Your task to perform on an android device: Go to Google Image 0: 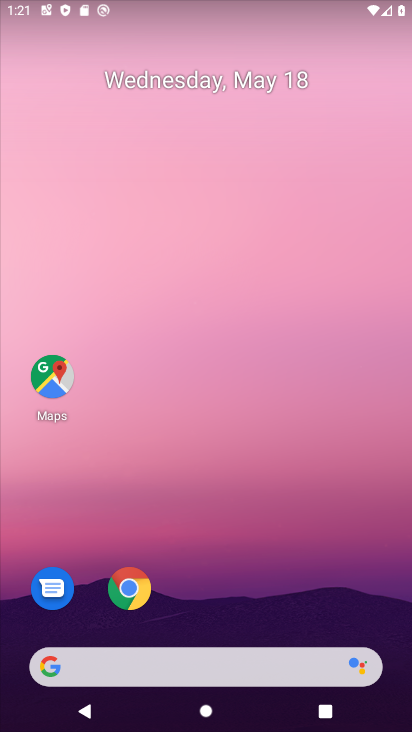
Step 0: drag from (342, 602) to (298, 108)
Your task to perform on an android device: Go to Google Image 1: 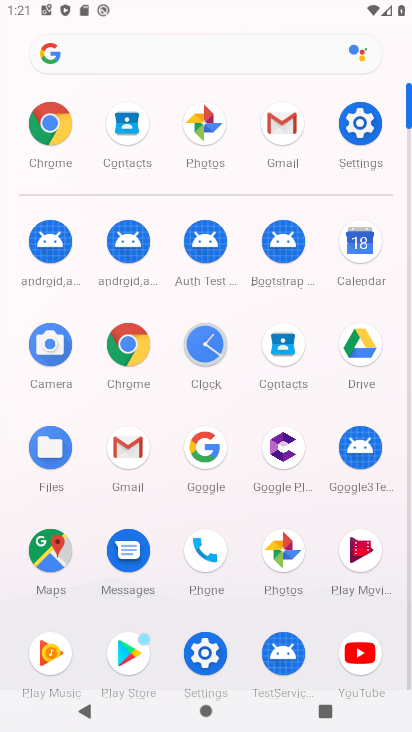
Step 1: click (213, 449)
Your task to perform on an android device: Go to Google Image 2: 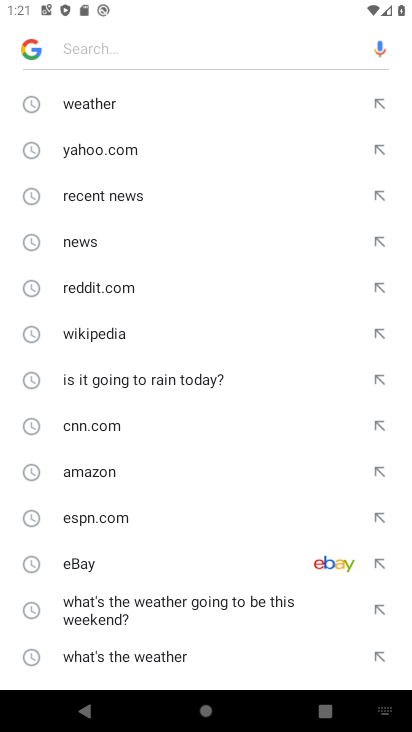
Step 2: task complete